Your task to perform on an android device: set an alarm Image 0: 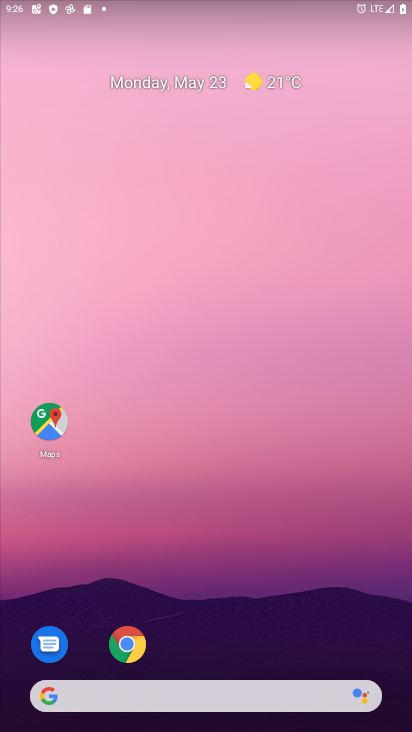
Step 0: drag from (153, 698) to (201, 83)
Your task to perform on an android device: set an alarm Image 1: 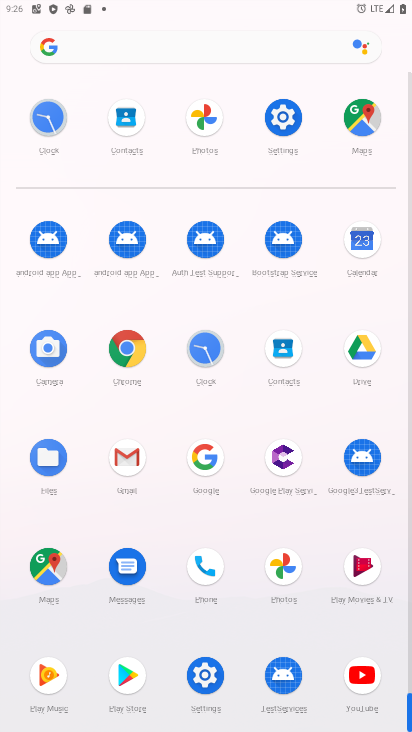
Step 1: click (52, 116)
Your task to perform on an android device: set an alarm Image 2: 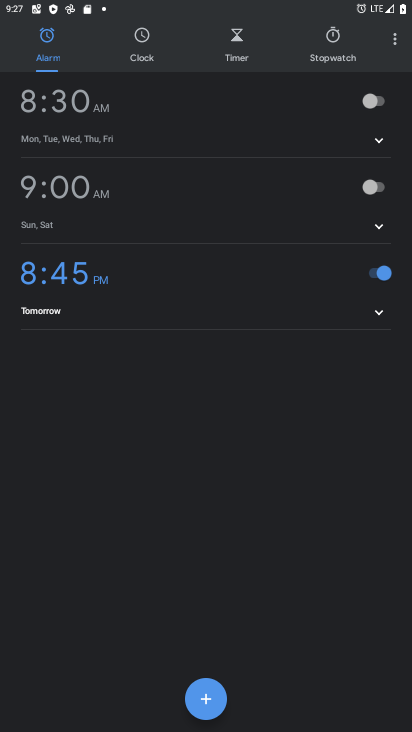
Step 2: click (208, 703)
Your task to perform on an android device: set an alarm Image 3: 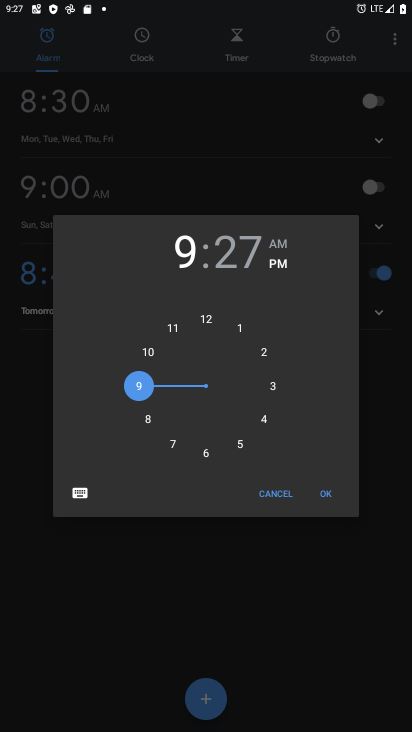
Step 3: click (323, 498)
Your task to perform on an android device: set an alarm Image 4: 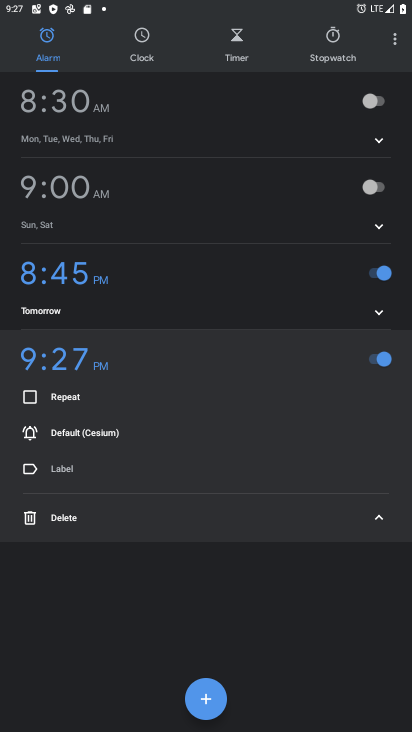
Step 4: task complete